Your task to perform on an android device: open app "Nova Launcher" Image 0: 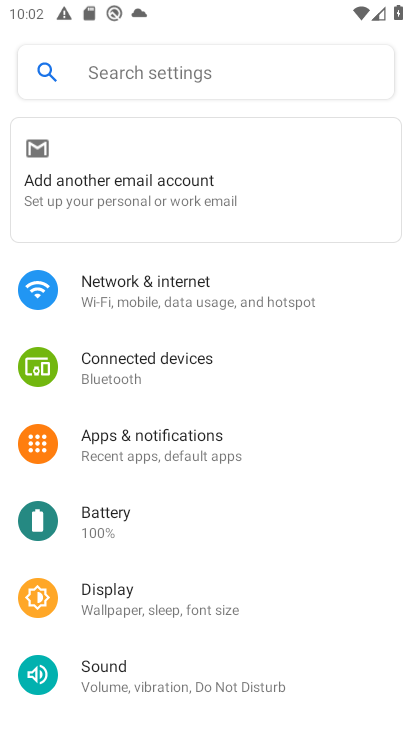
Step 0: press home button
Your task to perform on an android device: open app "Nova Launcher" Image 1: 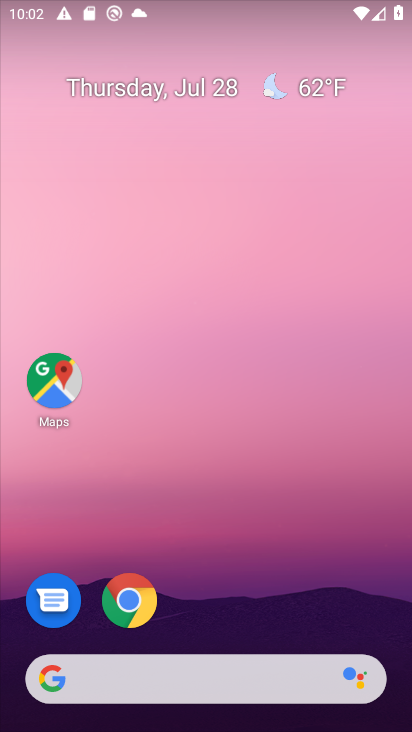
Step 1: drag from (214, 628) to (233, 19)
Your task to perform on an android device: open app "Nova Launcher" Image 2: 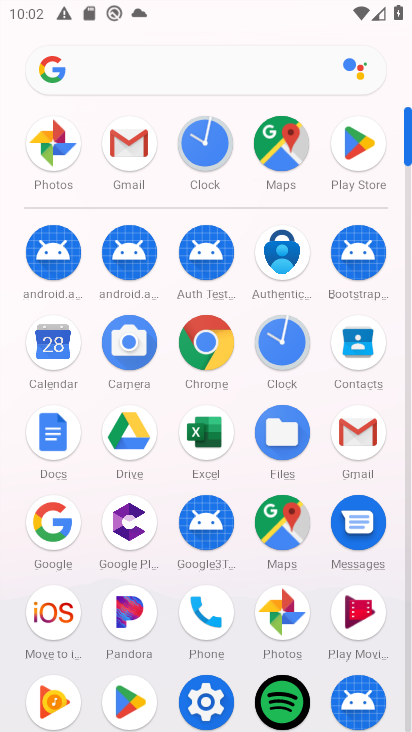
Step 2: click (354, 142)
Your task to perform on an android device: open app "Nova Launcher" Image 3: 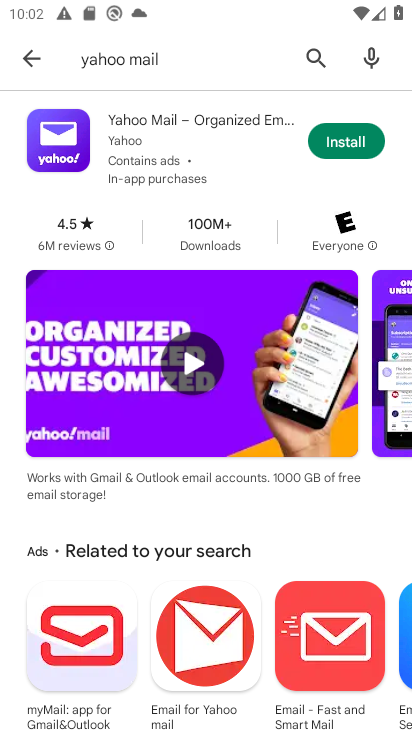
Step 3: click (309, 56)
Your task to perform on an android device: open app "Nova Launcher" Image 4: 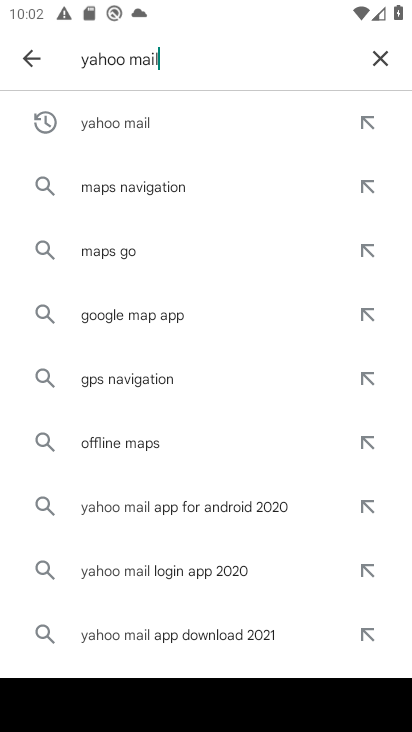
Step 4: click (372, 61)
Your task to perform on an android device: open app "Nova Launcher" Image 5: 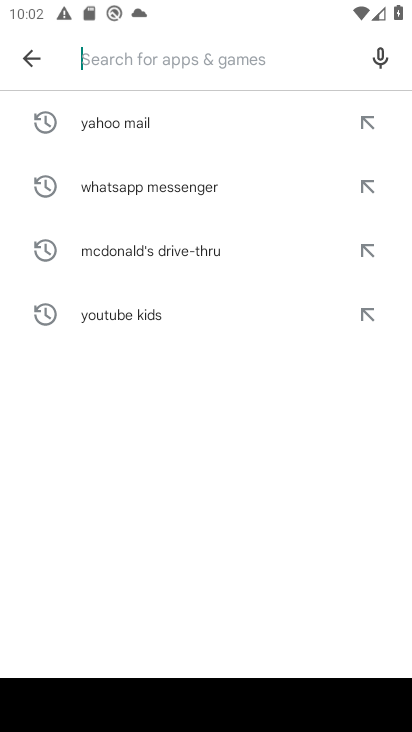
Step 5: type "Nova Launcher"
Your task to perform on an android device: open app "Nova Launcher" Image 6: 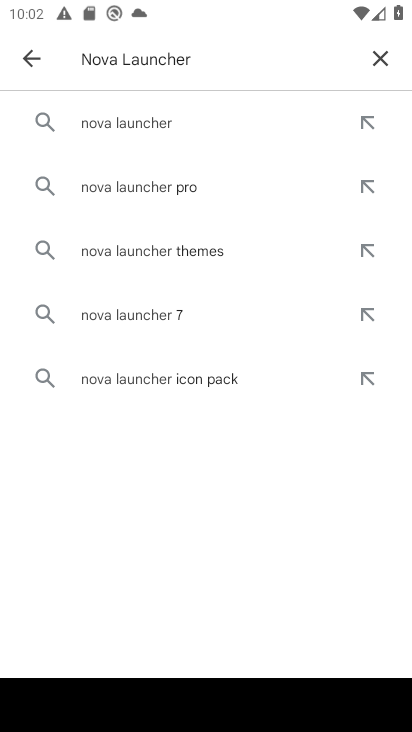
Step 6: click (126, 127)
Your task to perform on an android device: open app "Nova Launcher" Image 7: 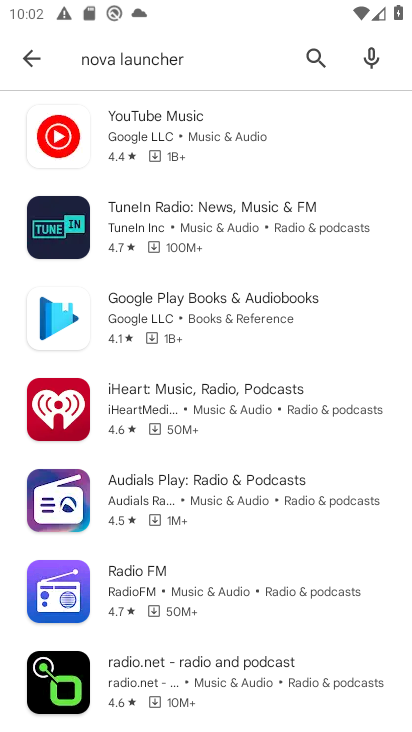
Step 7: task complete